Your task to perform on an android device: Turn off the flashlight Image 0: 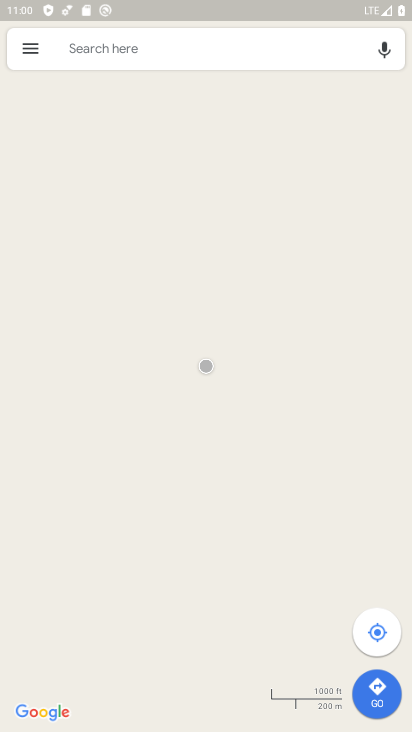
Step 0: press home button
Your task to perform on an android device: Turn off the flashlight Image 1: 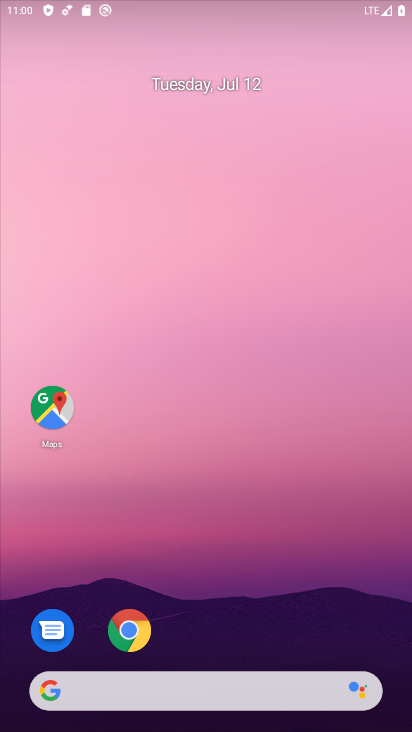
Step 1: drag from (376, 688) to (166, 0)
Your task to perform on an android device: Turn off the flashlight Image 2: 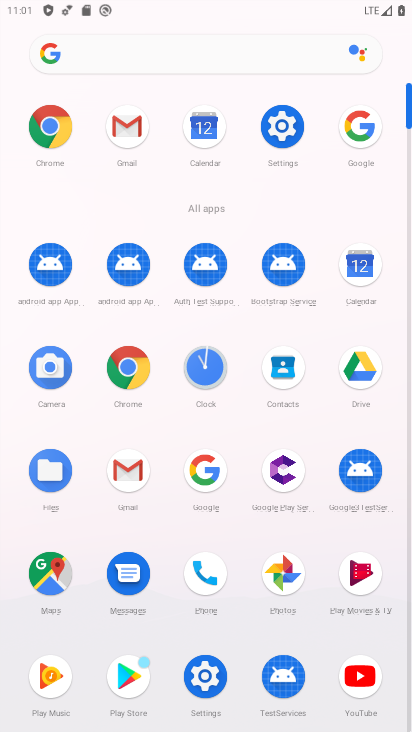
Step 2: click (282, 135)
Your task to perform on an android device: Turn off the flashlight Image 3: 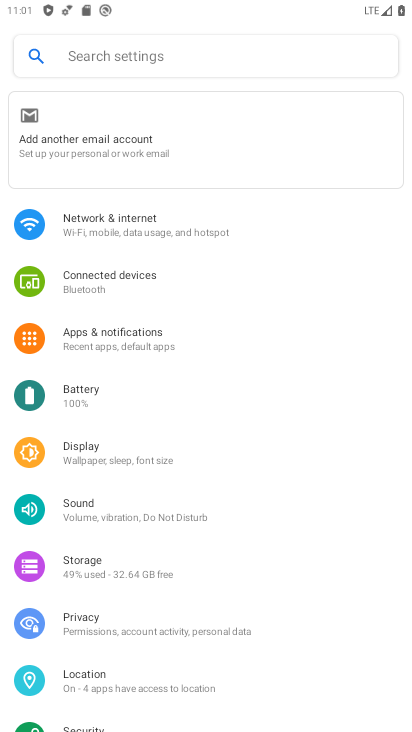
Step 3: task complete